Your task to perform on an android device: change the clock display to analog Image 0: 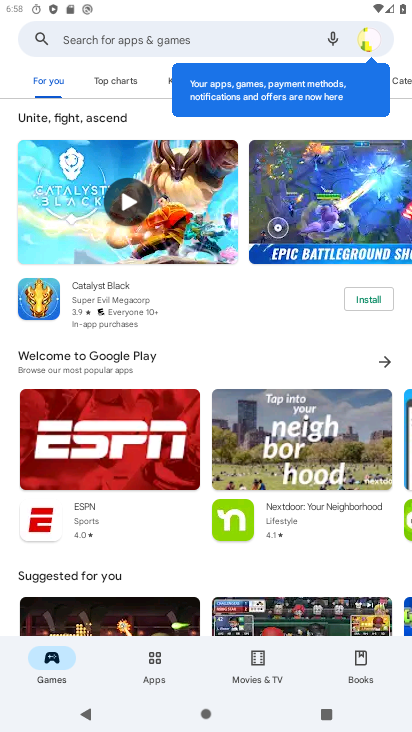
Step 0: press home button
Your task to perform on an android device: change the clock display to analog Image 1: 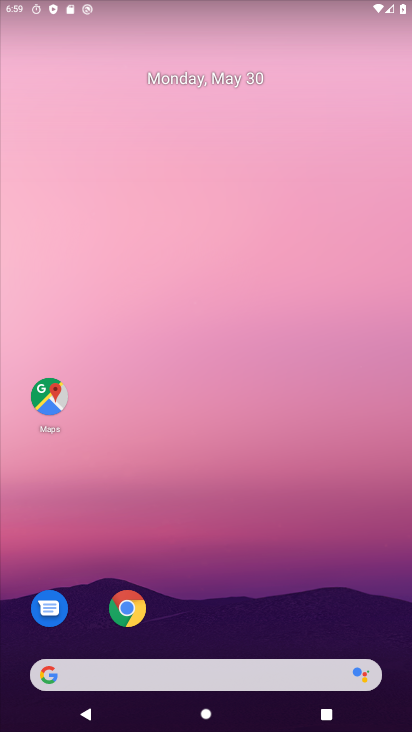
Step 1: drag from (174, 602) to (201, 222)
Your task to perform on an android device: change the clock display to analog Image 2: 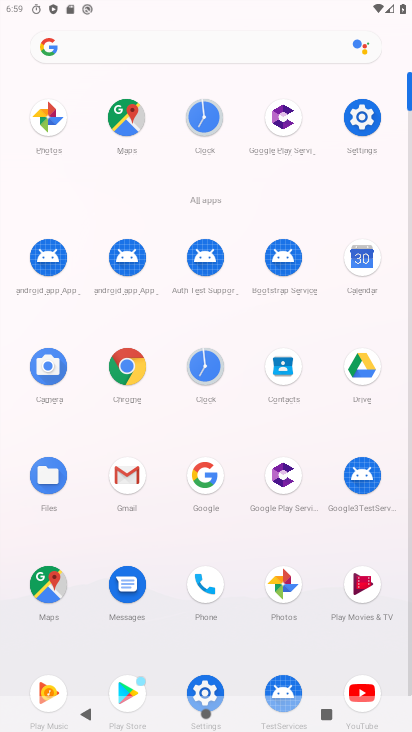
Step 2: click (206, 372)
Your task to perform on an android device: change the clock display to analog Image 3: 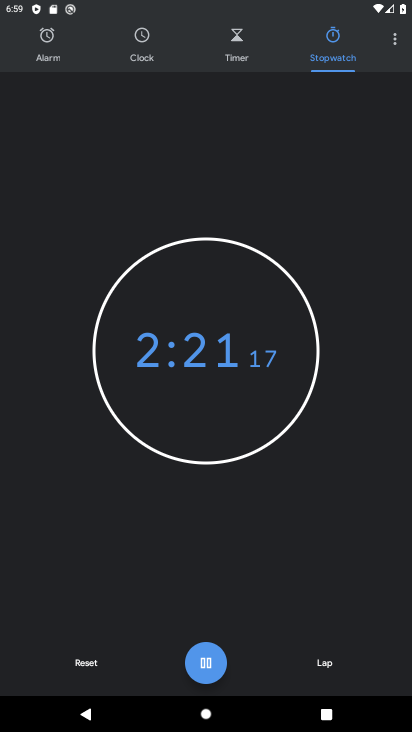
Step 3: click (394, 43)
Your task to perform on an android device: change the clock display to analog Image 4: 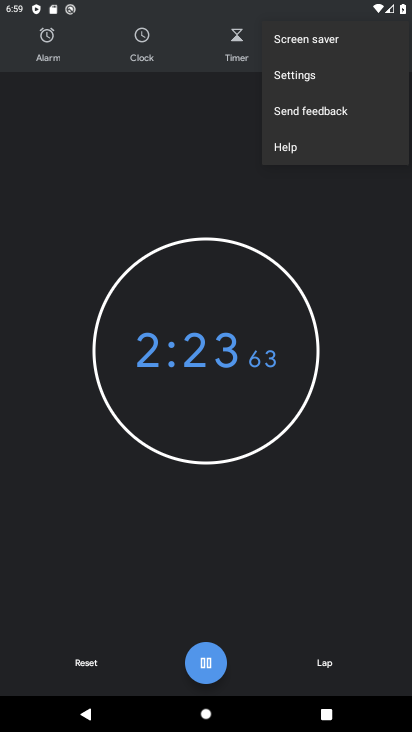
Step 4: click (307, 78)
Your task to perform on an android device: change the clock display to analog Image 5: 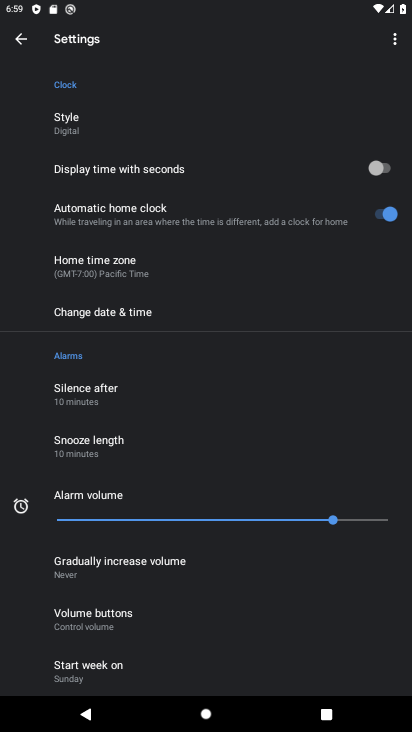
Step 5: click (68, 131)
Your task to perform on an android device: change the clock display to analog Image 6: 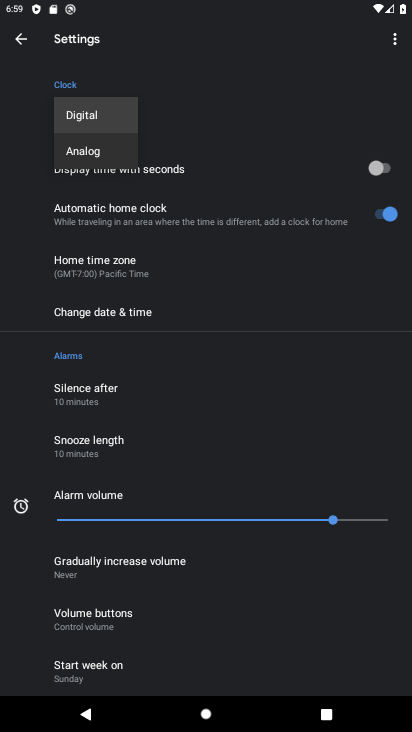
Step 6: click (80, 151)
Your task to perform on an android device: change the clock display to analog Image 7: 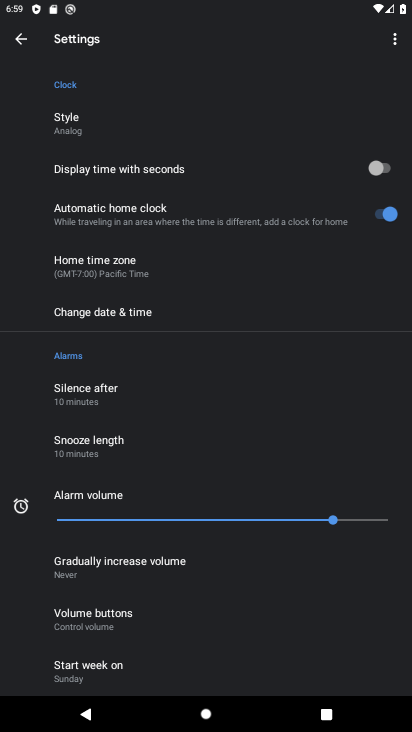
Step 7: task complete